Your task to perform on an android device: check storage Image 0: 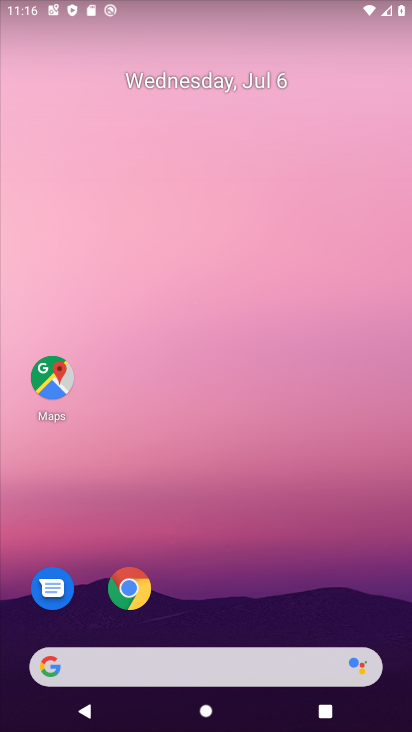
Step 0: drag from (292, 598) to (305, 389)
Your task to perform on an android device: check storage Image 1: 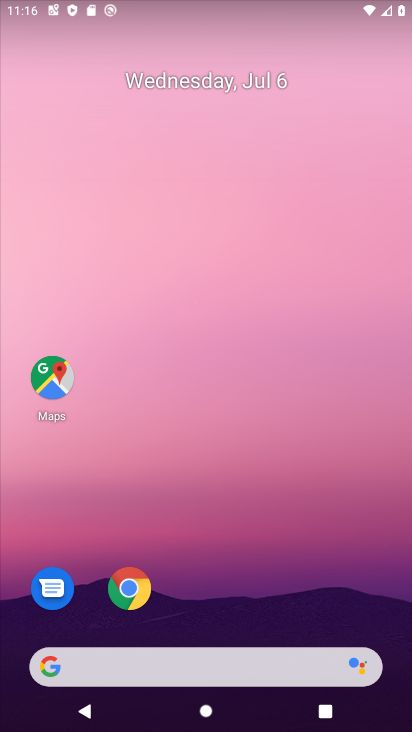
Step 1: drag from (341, 614) to (335, 176)
Your task to perform on an android device: check storage Image 2: 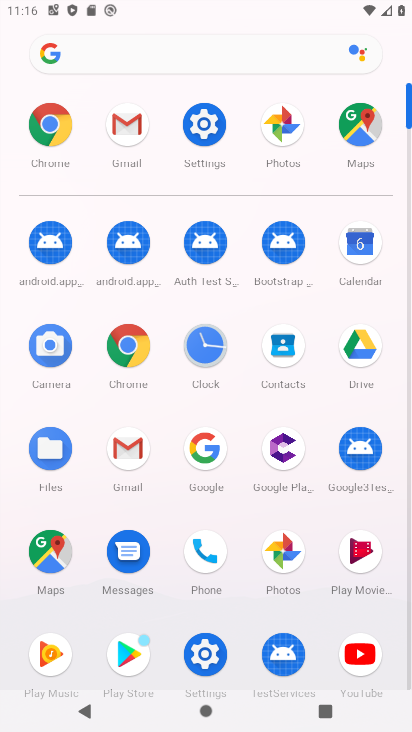
Step 2: click (200, 127)
Your task to perform on an android device: check storage Image 3: 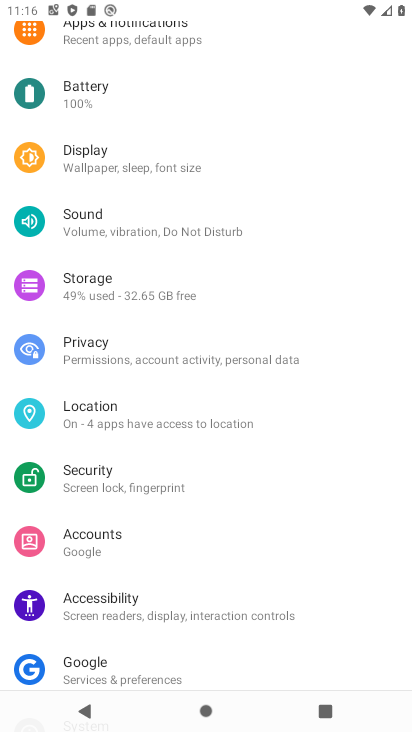
Step 3: click (150, 289)
Your task to perform on an android device: check storage Image 4: 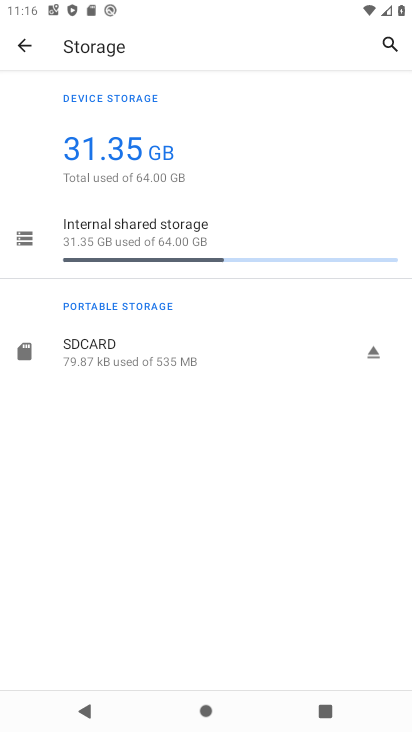
Step 4: task complete